Your task to perform on an android device: Set the phone to "Do not disturb". Image 0: 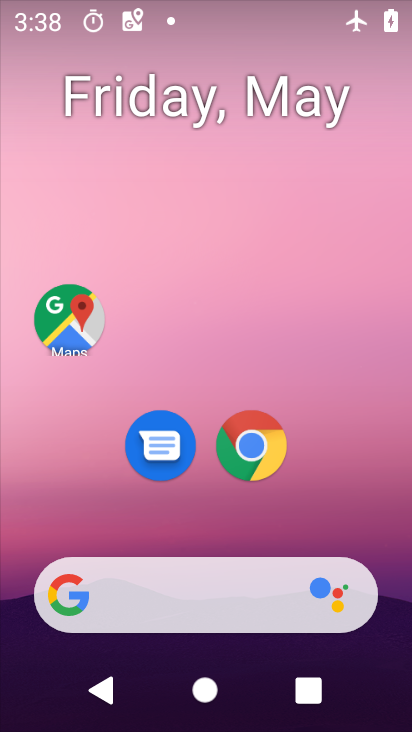
Step 0: drag from (208, 665) to (284, 248)
Your task to perform on an android device: Set the phone to "Do not disturb". Image 1: 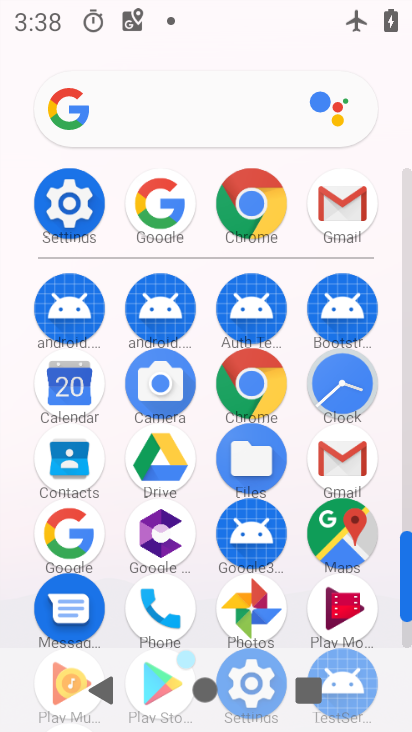
Step 1: drag from (346, 0) to (263, 545)
Your task to perform on an android device: Set the phone to "Do not disturb". Image 2: 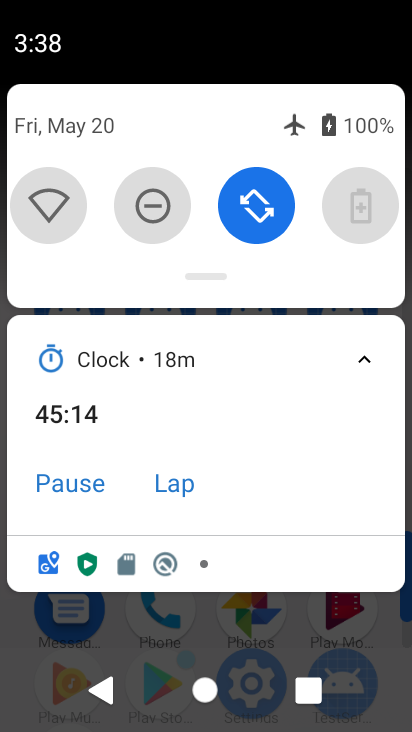
Step 2: click (164, 211)
Your task to perform on an android device: Set the phone to "Do not disturb". Image 3: 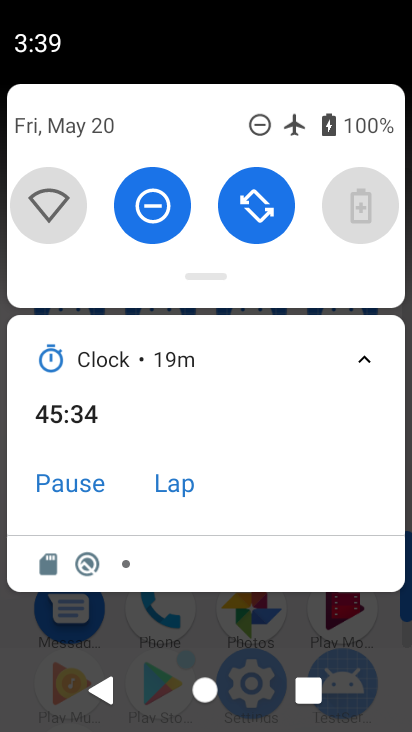
Step 3: task complete